Your task to perform on an android device: Show me productivity apps on the Play Store Image 0: 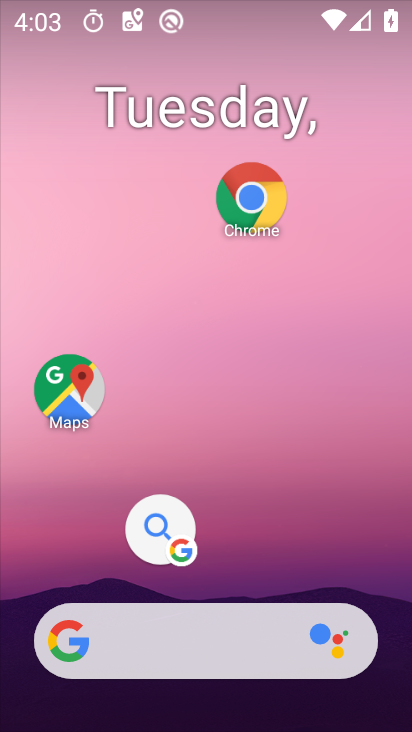
Step 0: drag from (222, 601) to (224, 159)
Your task to perform on an android device: Show me productivity apps on the Play Store Image 1: 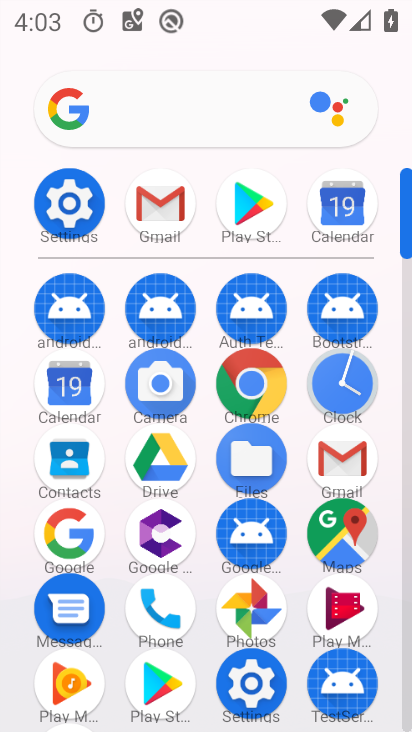
Step 1: click (145, 686)
Your task to perform on an android device: Show me productivity apps on the Play Store Image 2: 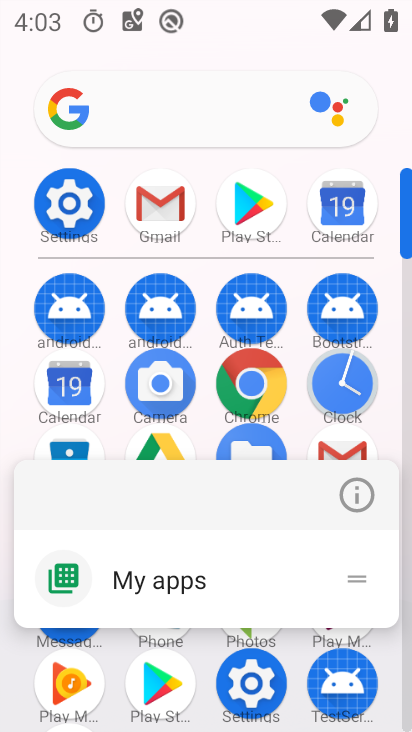
Step 2: click (168, 680)
Your task to perform on an android device: Show me productivity apps on the Play Store Image 3: 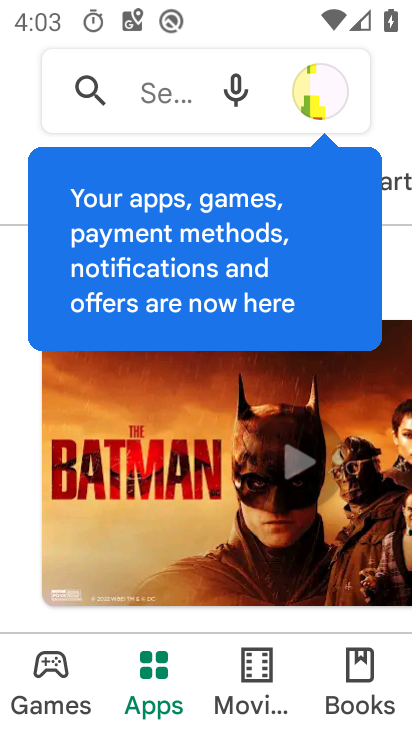
Step 3: click (164, 682)
Your task to perform on an android device: Show me productivity apps on the Play Store Image 4: 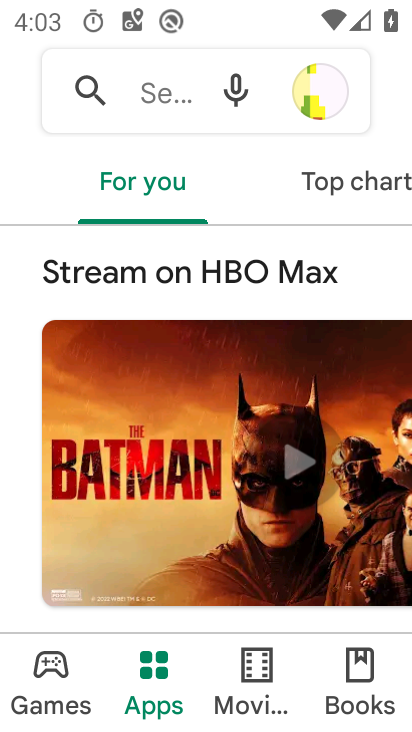
Step 4: task complete